Your task to perform on an android device: Open the phone app and click the voicemail tab. Image 0: 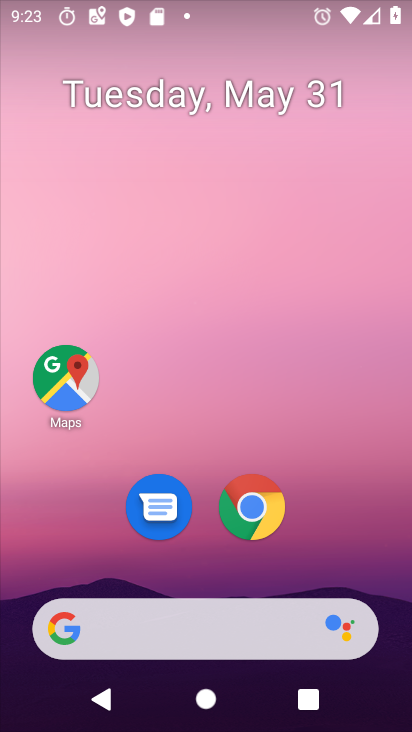
Step 0: drag from (340, 580) to (374, 6)
Your task to perform on an android device: Open the phone app and click the voicemail tab. Image 1: 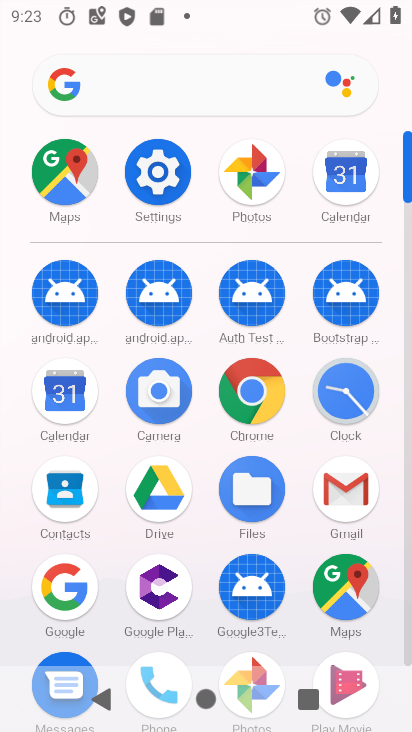
Step 1: click (405, 571)
Your task to perform on an android device: Open the phone app and click the voicemail tab. Image 2: 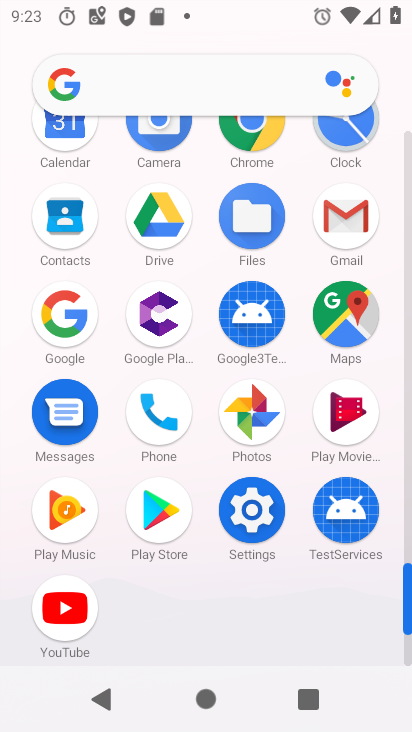
Step 2: click (158, 424)
Your task to perform on an android device: Open the phone app and click the voicemail tab. Image 3: 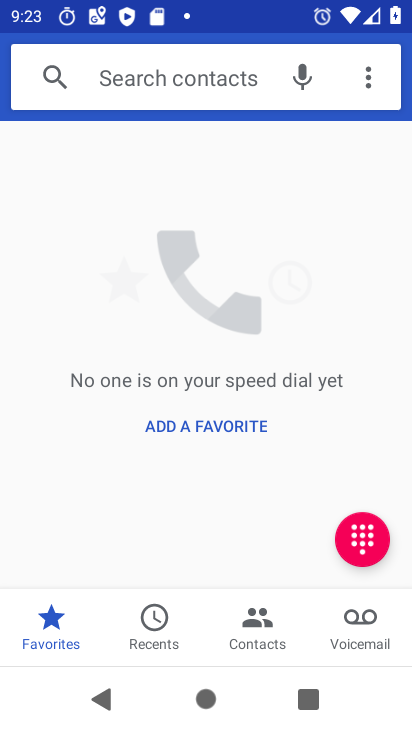
Step 3: click (334, 636)
Your task to perform on an android device: Open the phone app and click the voicemail tab. Image 4: 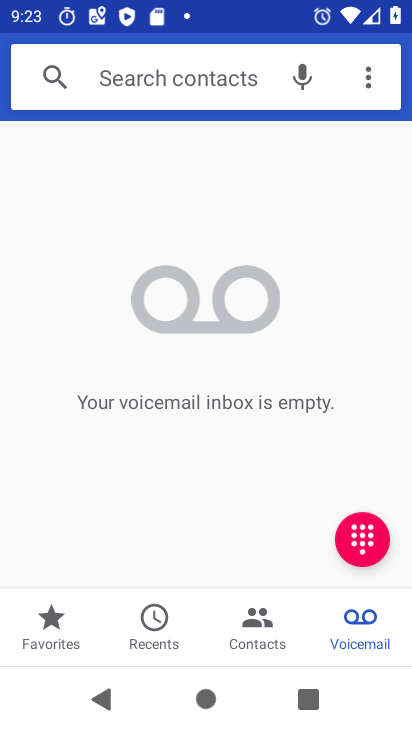
Step 4: task complete